Your task to perform on an android device: turn off airplane mode Image 0: 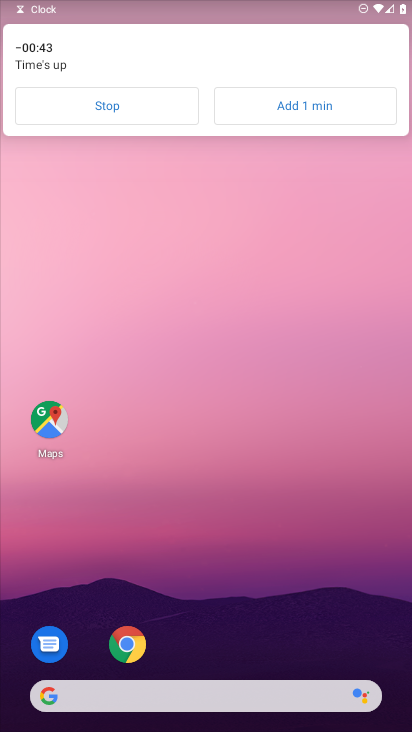
Step 0: click (354, 671)
Your task to perform on an android device: turn off airplane mode Image 1: 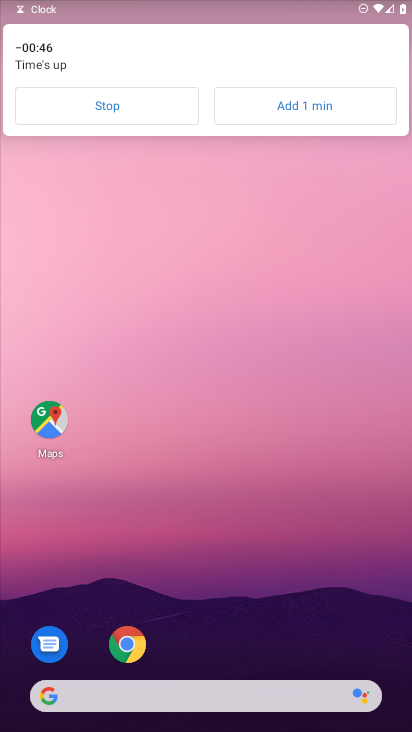
Step 1: click (354, 671)
Your task to perform on an android device: turn off airplane mode Image 2: 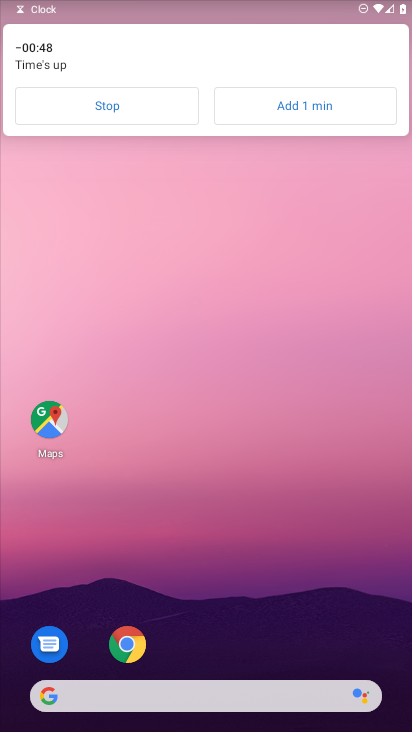
Step 2: drag from (354, 671) to (383, 104)
Your task to perform on an android device: turn off airplane mode Image 3: 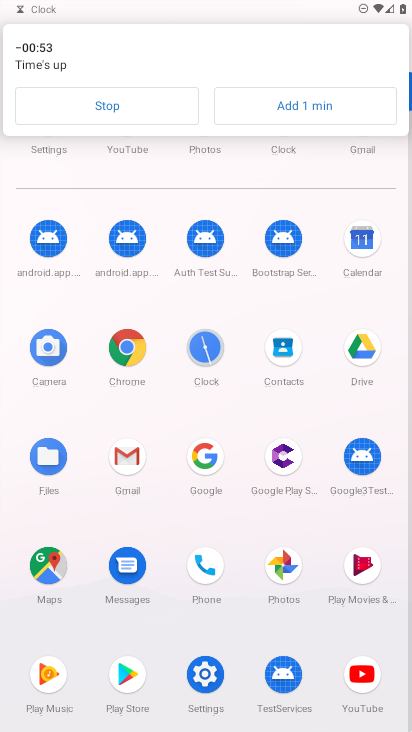
Step 3: click (193, 665)
Your task to perform on an android device: turn off airplane mode Image 4: 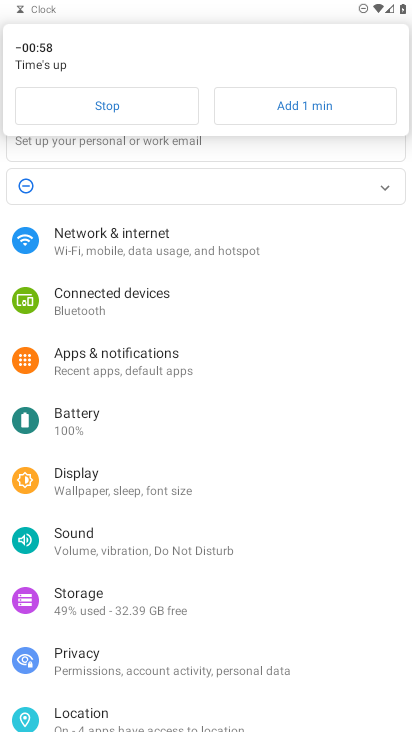
Step 4: click (195, 251)
Your task to perform on an android device: turn off airplane mode Image 5: 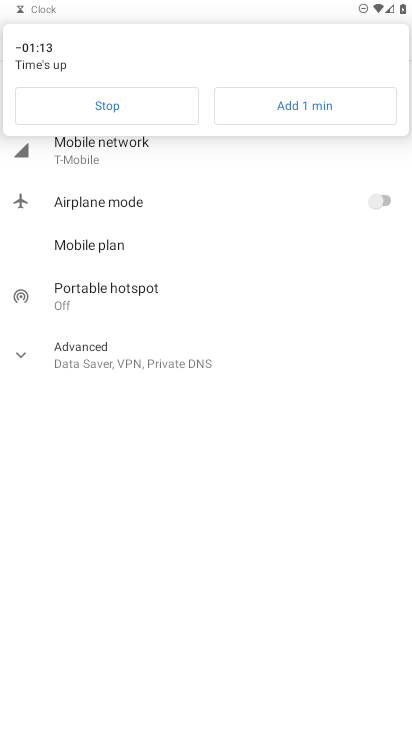
Step 5: click (112, 112)
Your task to perform on an android device: turn off airplane mode Image 6: 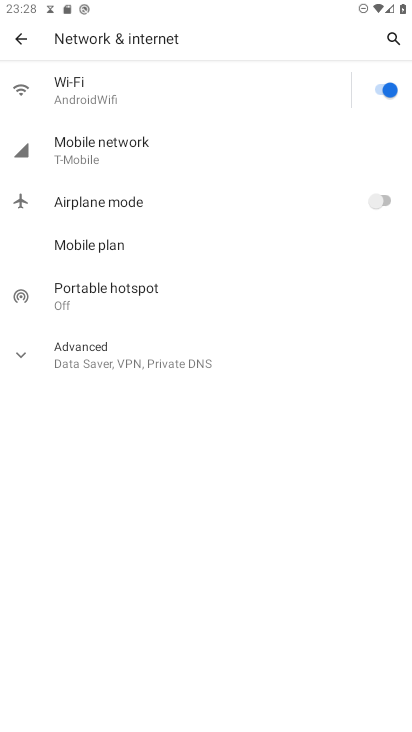
Step 6: task complete